Your task to perform on an android device: Open Google Chrome Image 0: 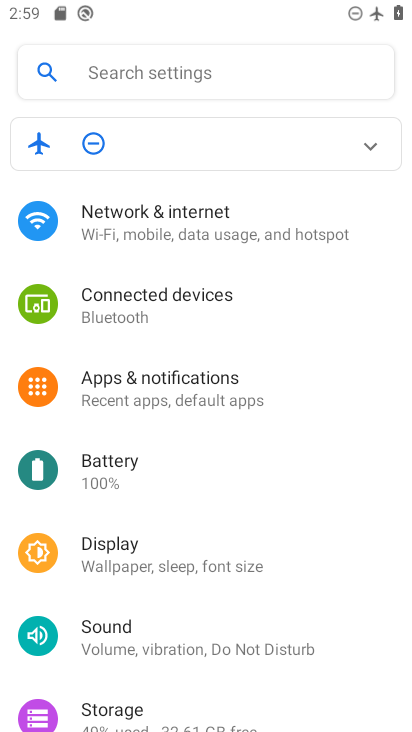
Step 0: press home button
Your task to perform on an android device: Open Google Chrome Image 1: 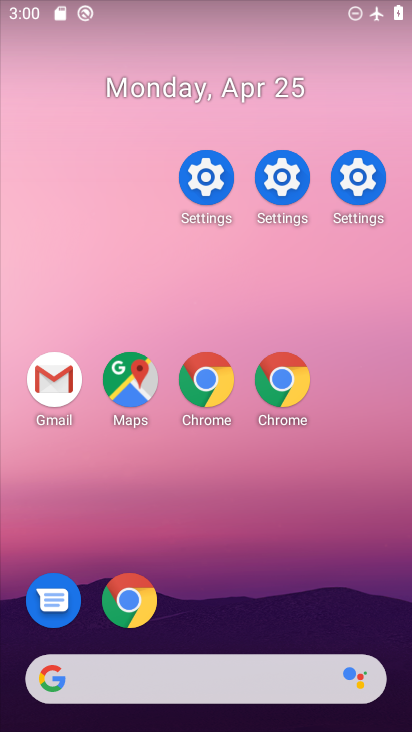
Step 1: drag from (269, 692) to (163, 19)
Your task to perform on an android device: Open Google Chrome Image 2: 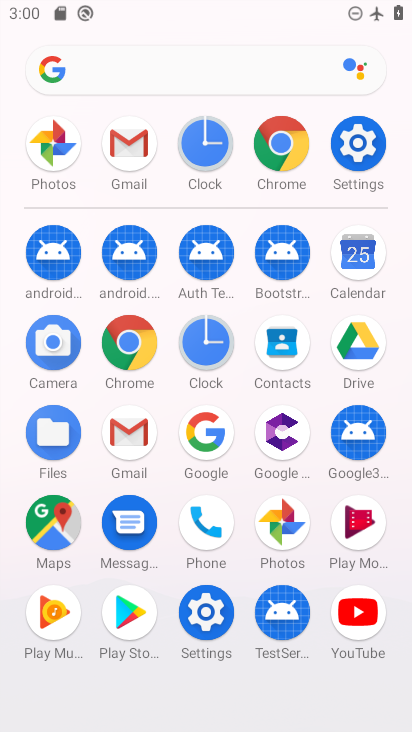
Step 2: click (276, 155)
Your task to perform on an android device: Open Google Chrome Image 3: 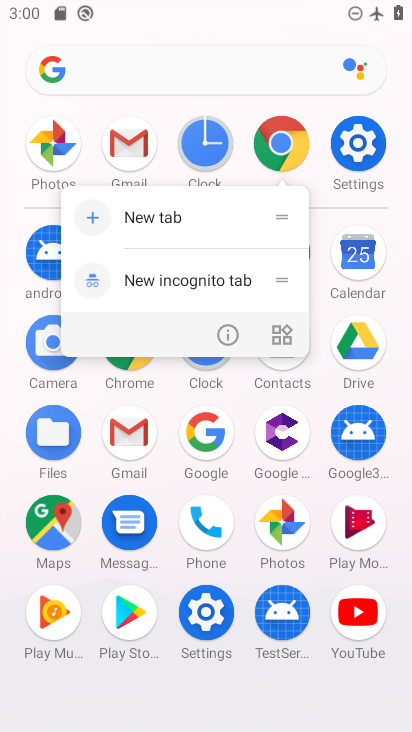
Step 3: click (276, 155)
Your task to perform on an android device: Open Google Chrome Image 4: 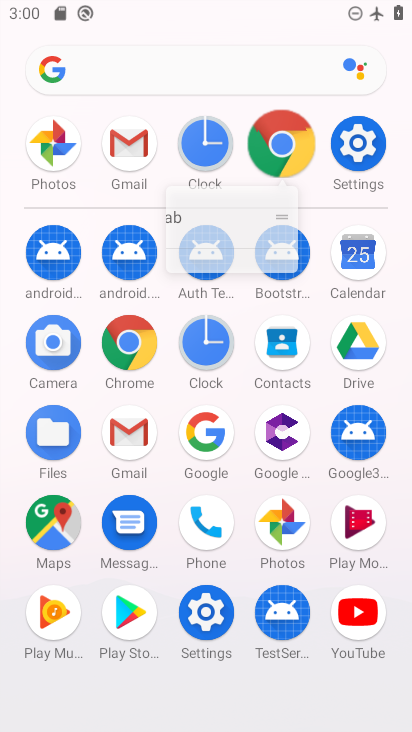
Step 4: click (276, 152)
Your task to perform on an android device: Open Google Chrome Image 5: 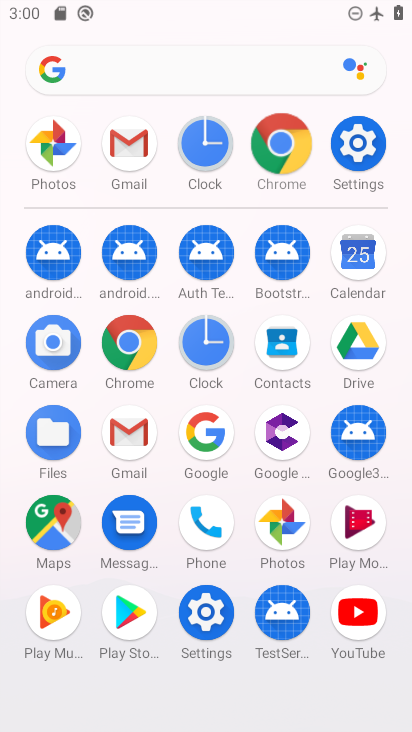
Step 5: click (276, 148)
Your task to perform on an android device: Open Google Chrome Image 6: 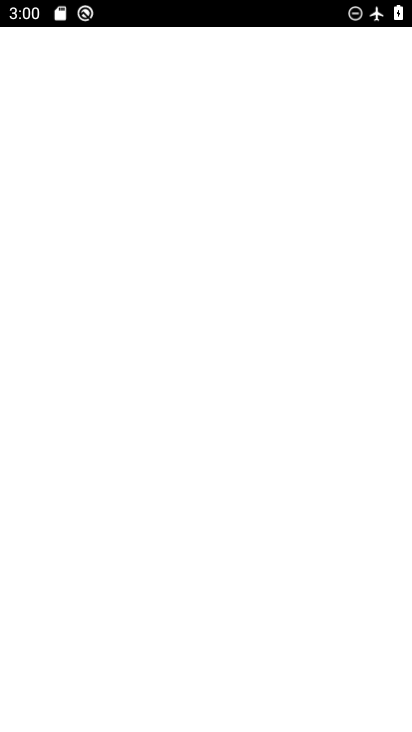
Step 6: click (266, 144)
Your task to perform on an android device: Open Google Chrome Image 7: 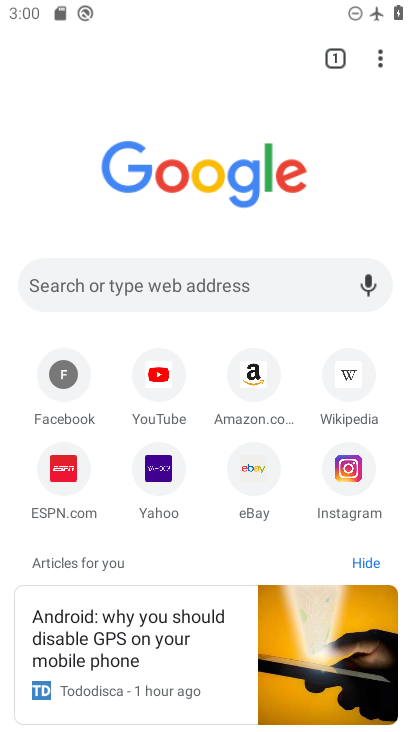
Step 7: drag from (376, 55) to (36, 143)
Your task to perform on an android device: Open Google Chrome Image 8: 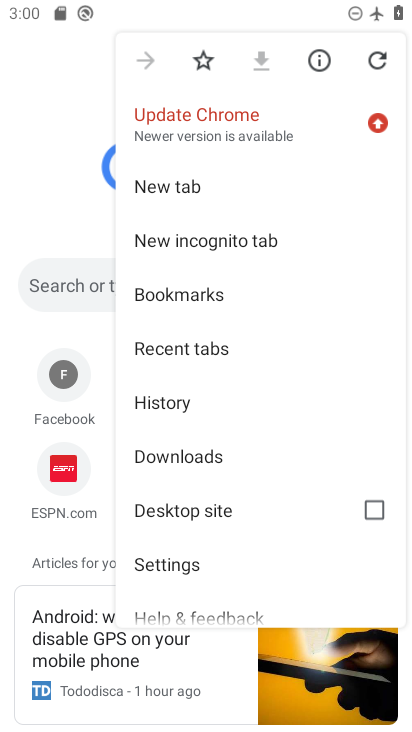
Step 8: click (36, 141)
Your task to perform on an android device: Open Google Chrome Image 9: 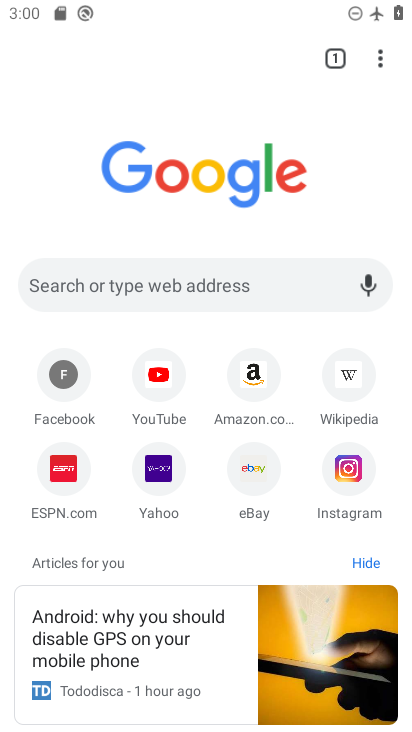
Step 9: task complete